Your task to perform on an android device: open chrome and create a bookmark for the current page Image 0: 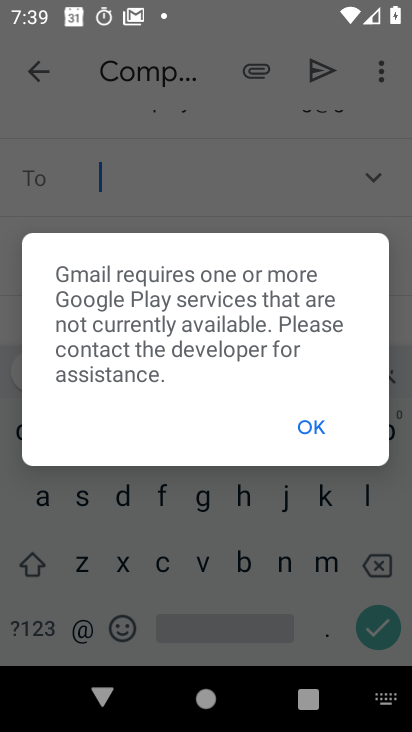
Step 0: press home button
Your task to perform on an android device: open chrome and create a bookmark for the current page Image 1: 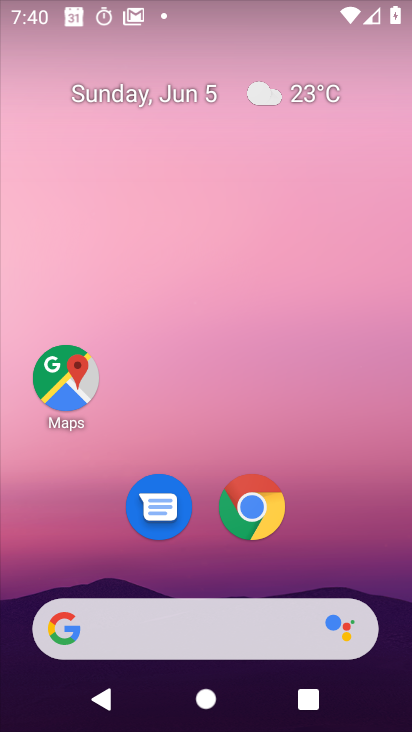
Step 1: click (238, 490)
Your task to perform on an android device: open chrome and create a bookmark for the current page Image 2: 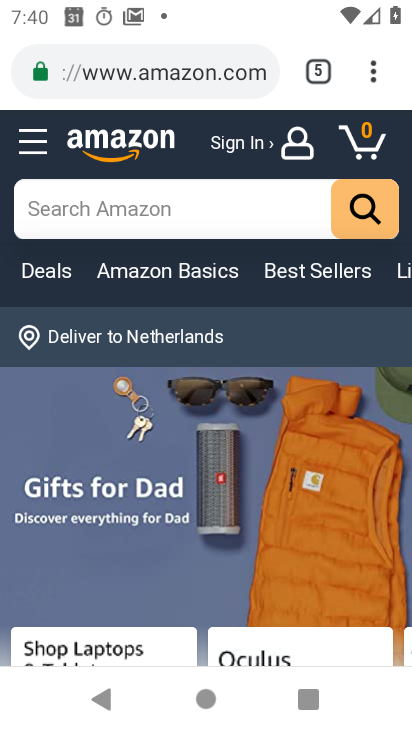
Step 2: click (378, 76)
Your task to perform on an android device: open chrome and create a bookmark for the current page Image 3: 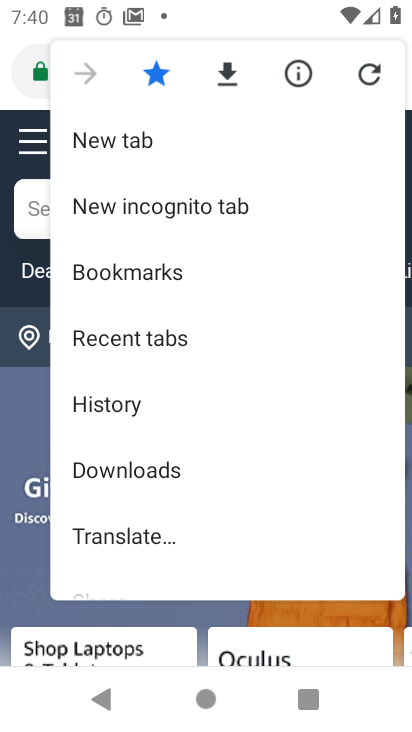
Step 3: drag from (234, 450) to (207, 208)
Your task to perform on an android device: open chrome and create a bookmark for the current page Image 4: 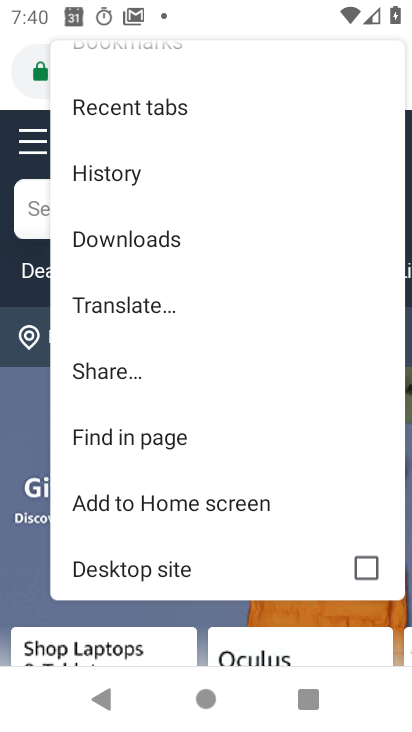
Step 4: drag from (121, 457) to (124, 325)
Your task to perform on an android device: open chrome and create a bookmark for the current page Image 5: 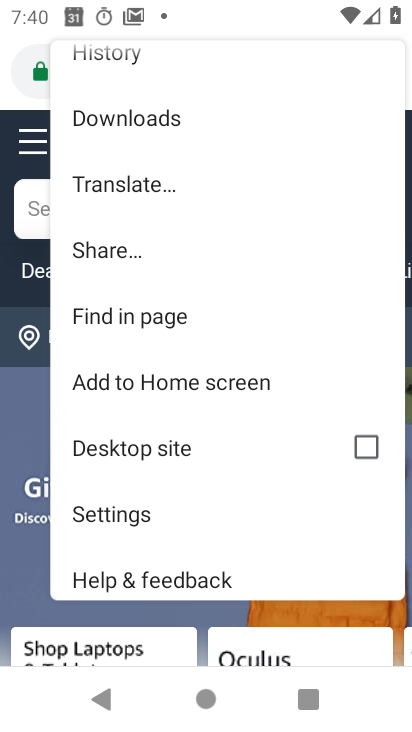
Step 5: click (109, 509)
Your task to perform on an android device: open chrome and create a bookmark for the current page Image 6: 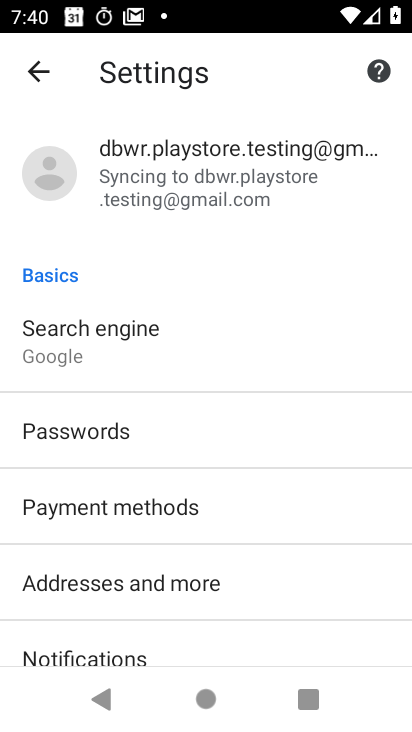
Step 6: click (35, 84)
Your task to perform on an android device: open chrome and create a bookmark for the current page Image 7: 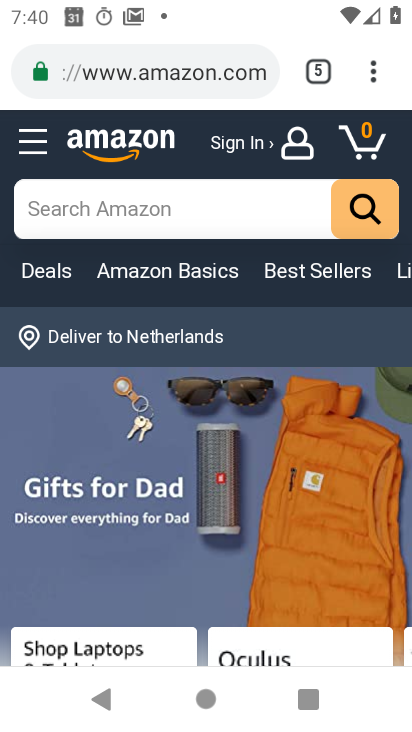
Step 7: click (363, 88)
Your task to perform on an android device: open chrome and create a bookmark for the current page Image 8: 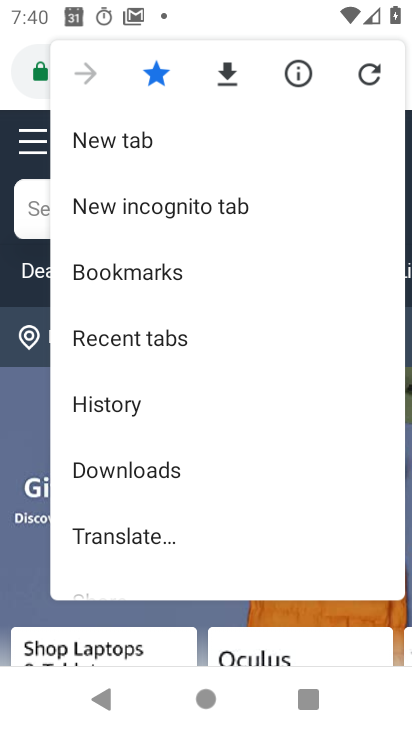
Step 8: click (155, 279)
Your task to perform on an android device: open chrome and create a bookmark for the current page Image 9: 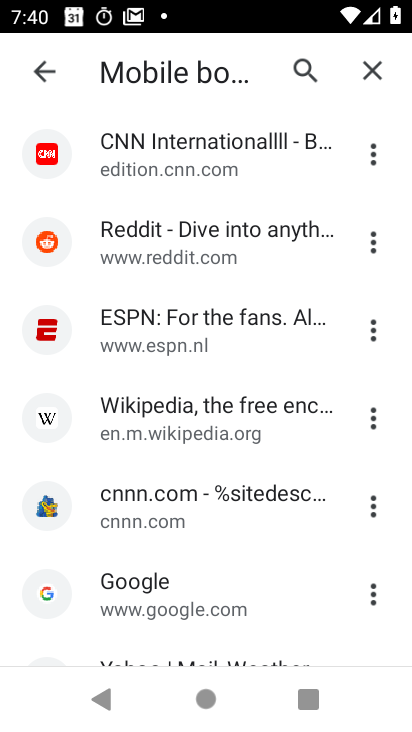
Step 9: task complete